Your task to perform on an android device: Open maps Image 0: 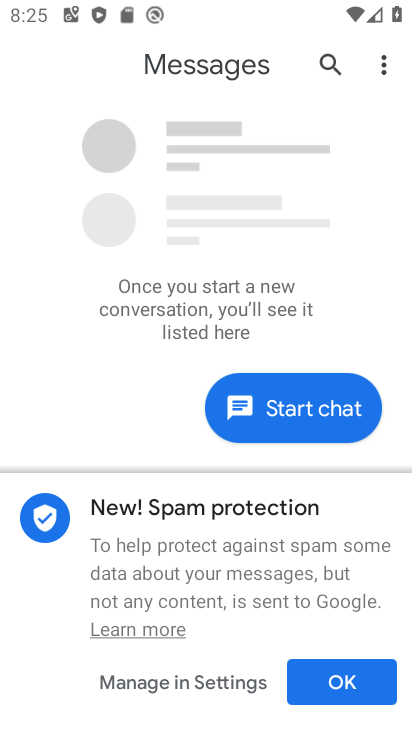
Step 0: press home button
Your task to perform on an android device: Open maps Image 1: 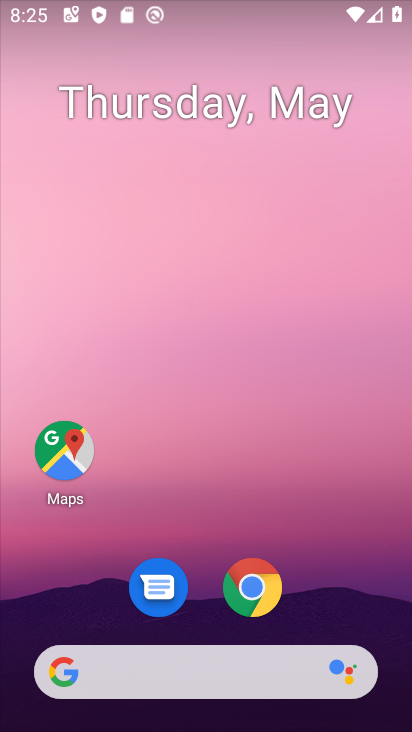
Step 1: click (73, 443)
Your task to perform on an android device: Open maps Image 2: 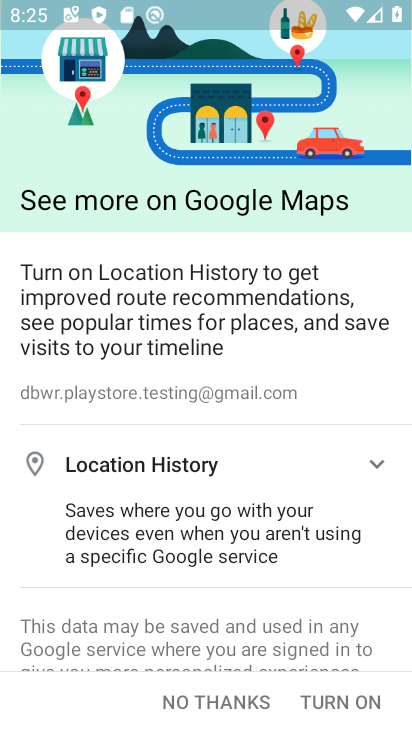
Step 2: task complete